Your task to perform on an android device: Do I have any events tomorrow? Image 0: 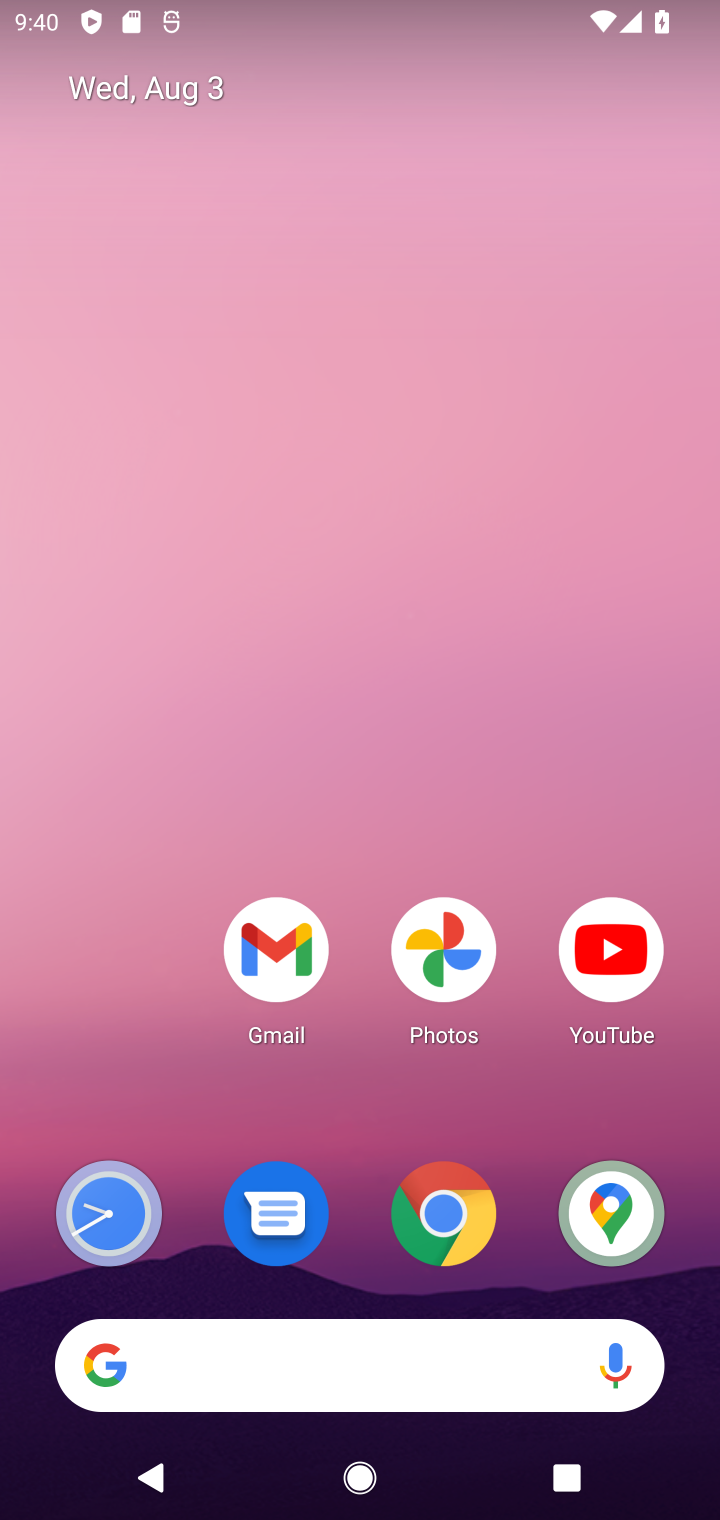
Step 0: drag from (386, 1108) to (335, 401)
Your task to perform on an android device: Do I have any events tomorrow? Image 1: 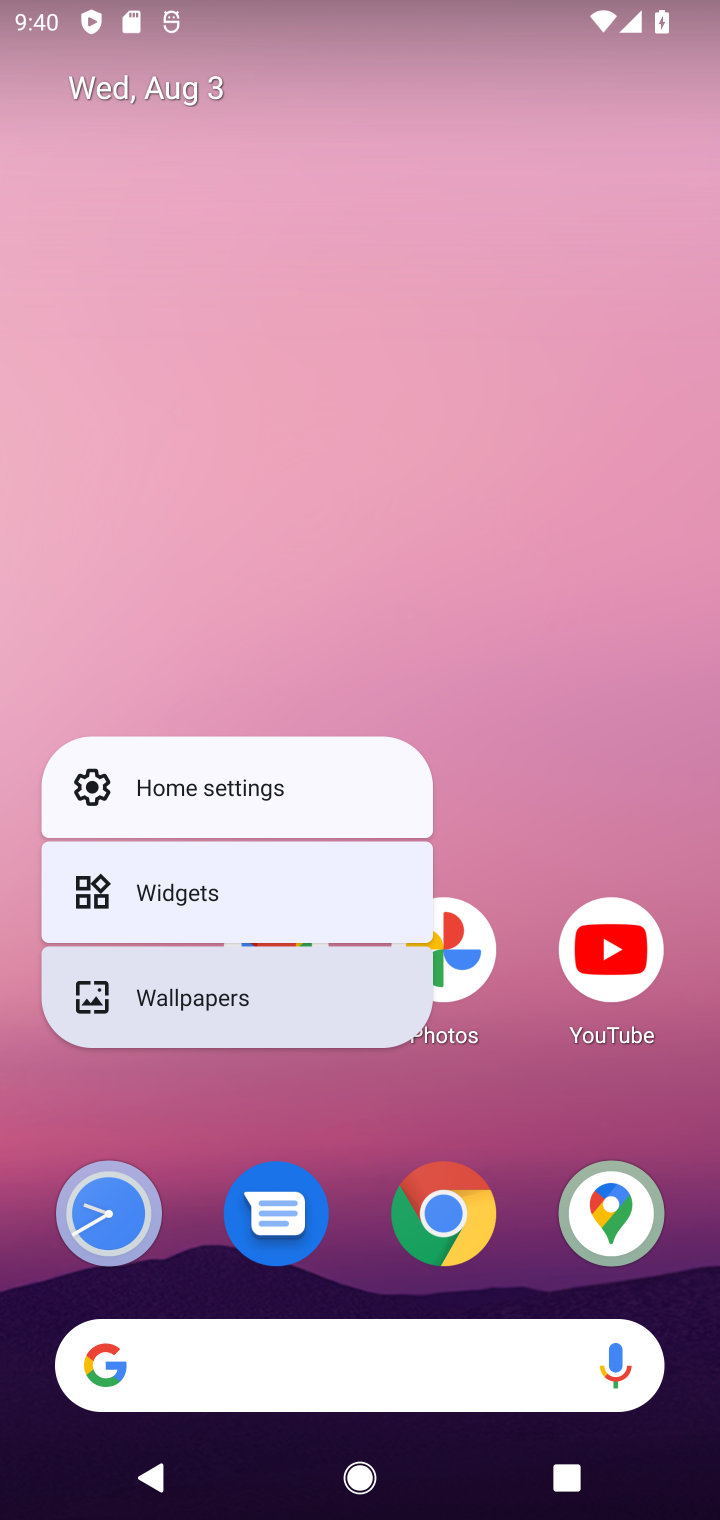
Step 1: click (530, 697)
Your task to perform on an android device: Do I have any events tomorrow? Image 2: 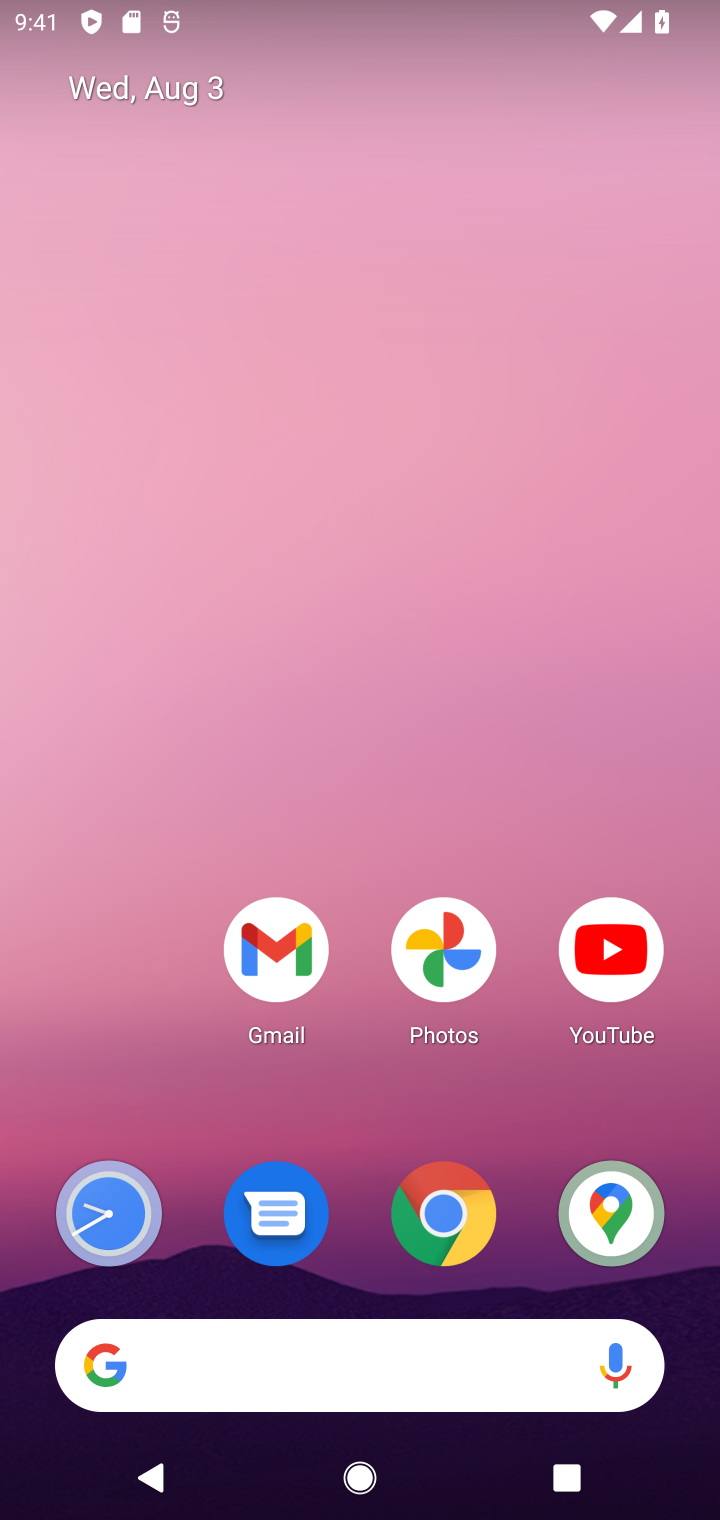
Step 2: click (396, 1113)
Your task to perform on an android device: Do I have any events tomorrow? Image 3: 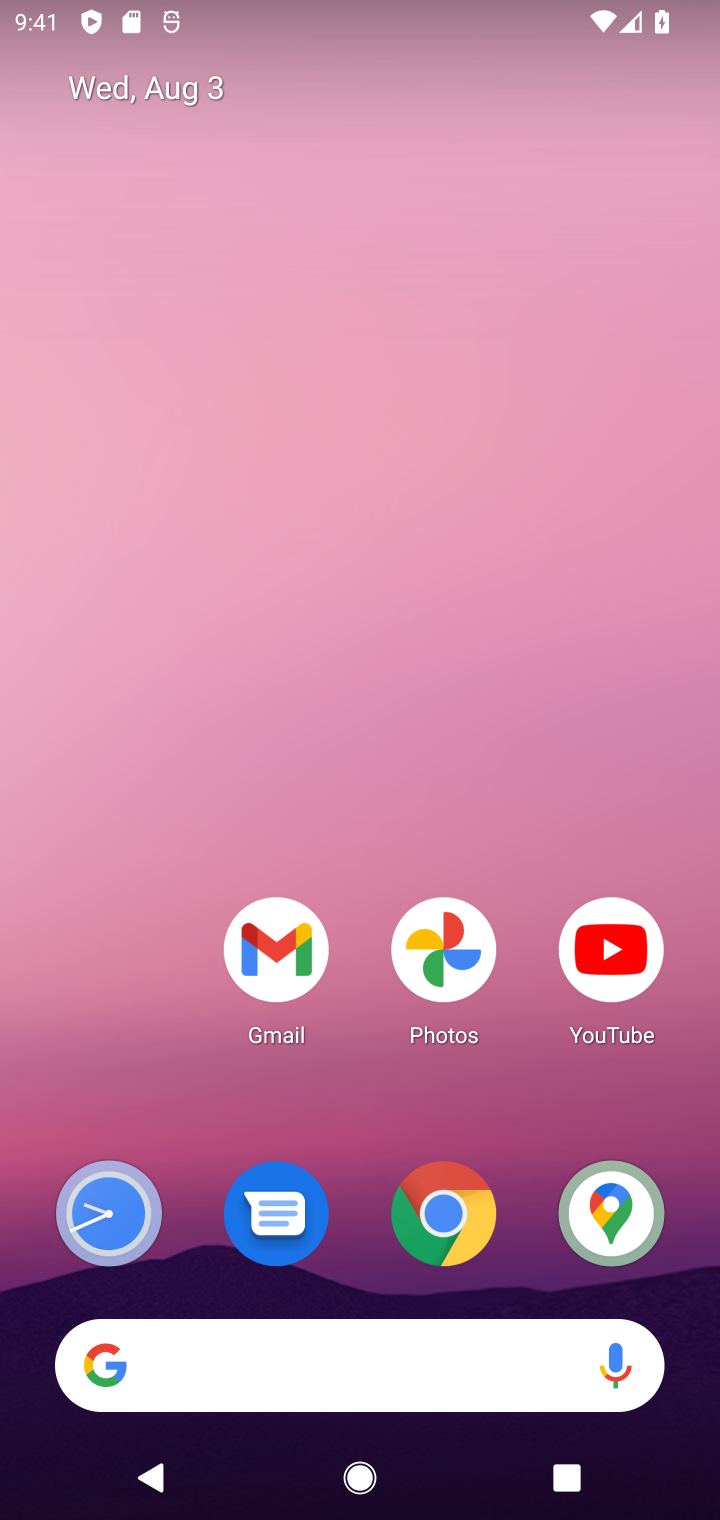
Step 3: drag from (449, 1103) to (328, 522)
Your task to perform on an android device: Do I have any events tomorrow? Image 4: 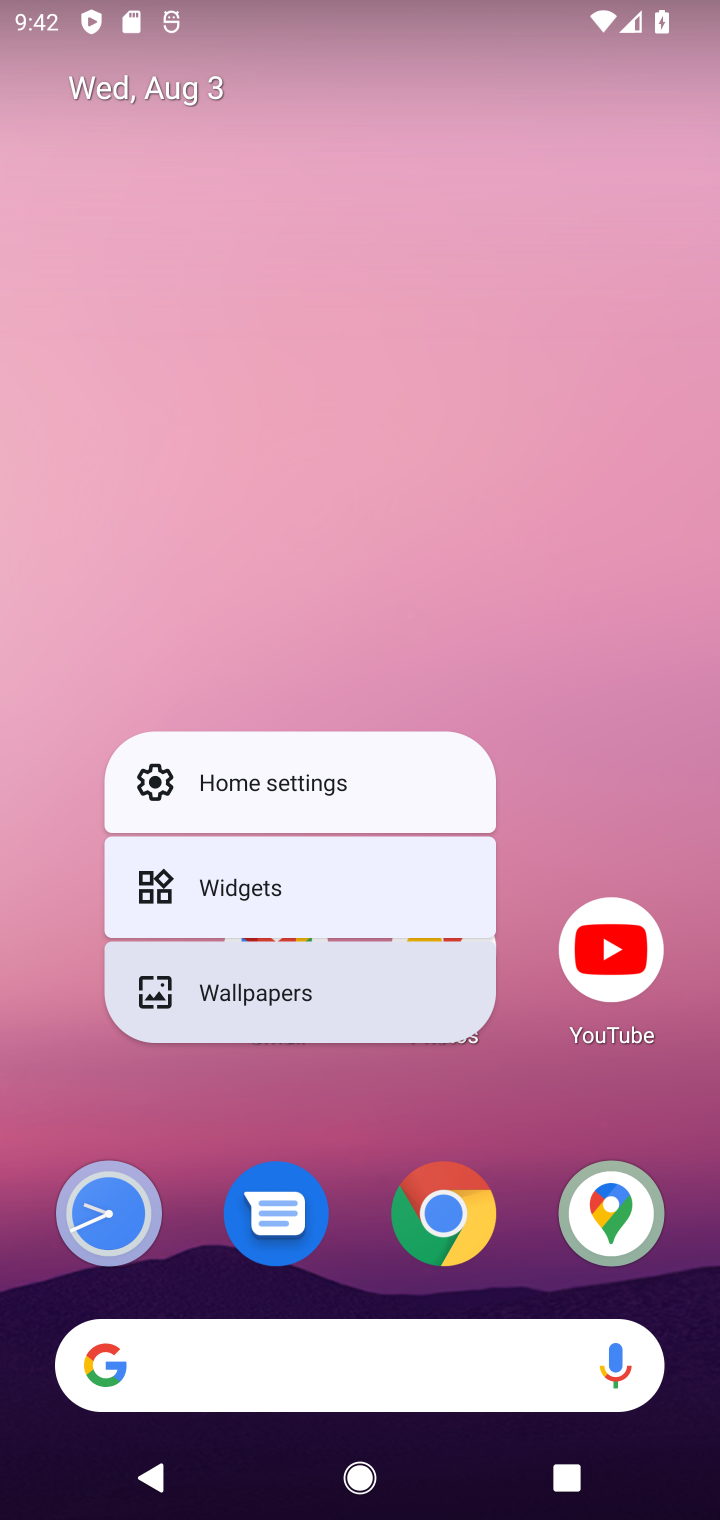
Step 4: drag from (579, 757) to (437, 53)
Your task to perform on an android device: Do I have any events tomorrow? Image 5: 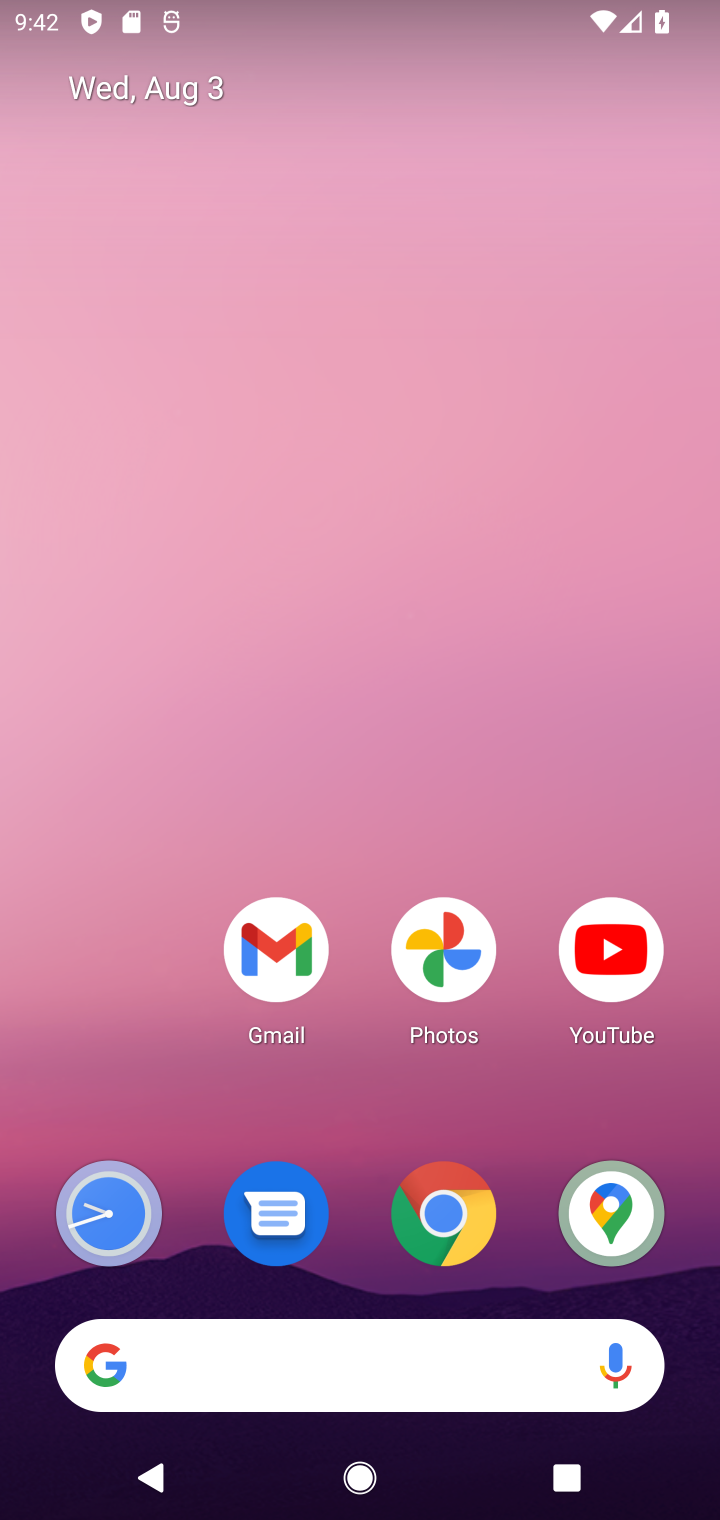
Step 5: drag from (509, 1000) to (422, 148)
Your task to perform on an android device: Do I have any events tomorrow? Image 6: 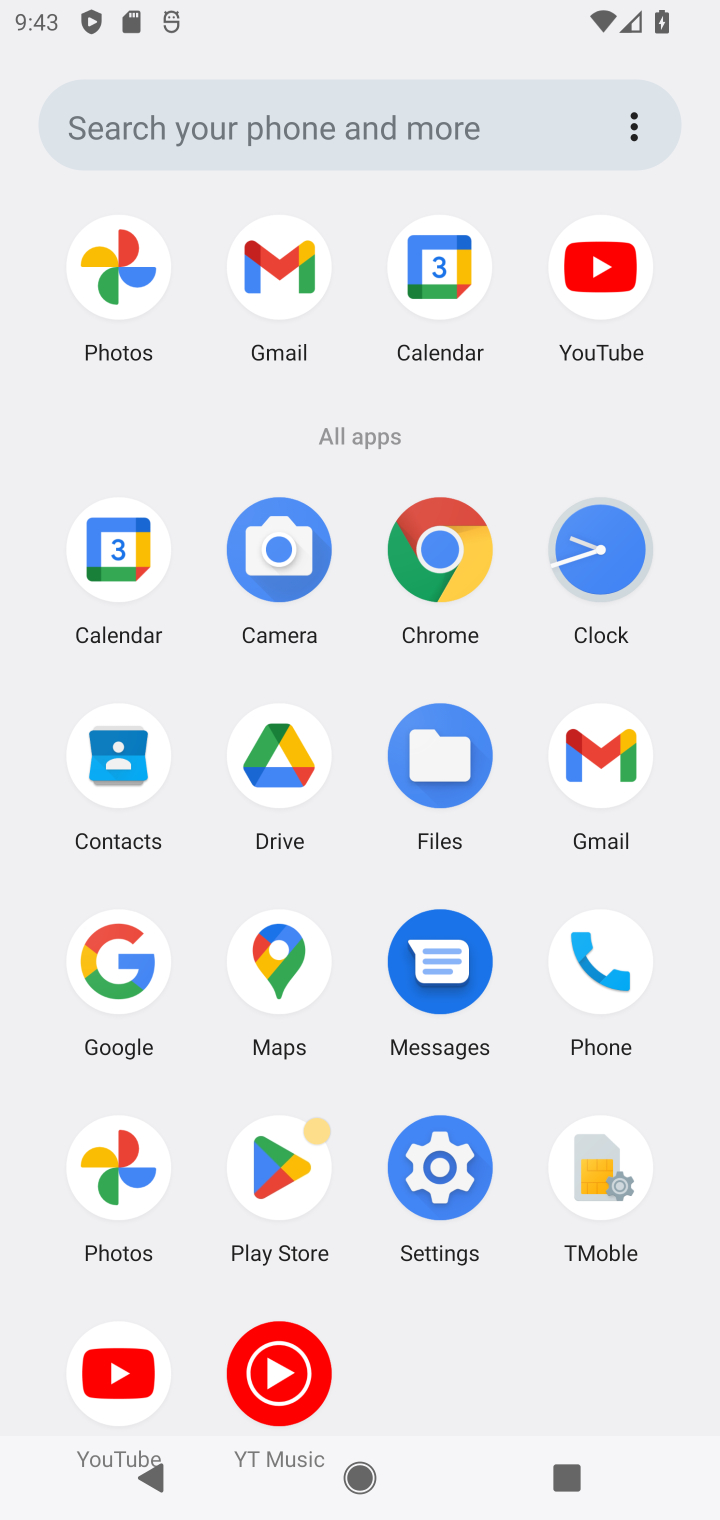
Step 6: click (458, 286)
Your task to perform on an android device: Do I have any events tomorrow? Image 7: 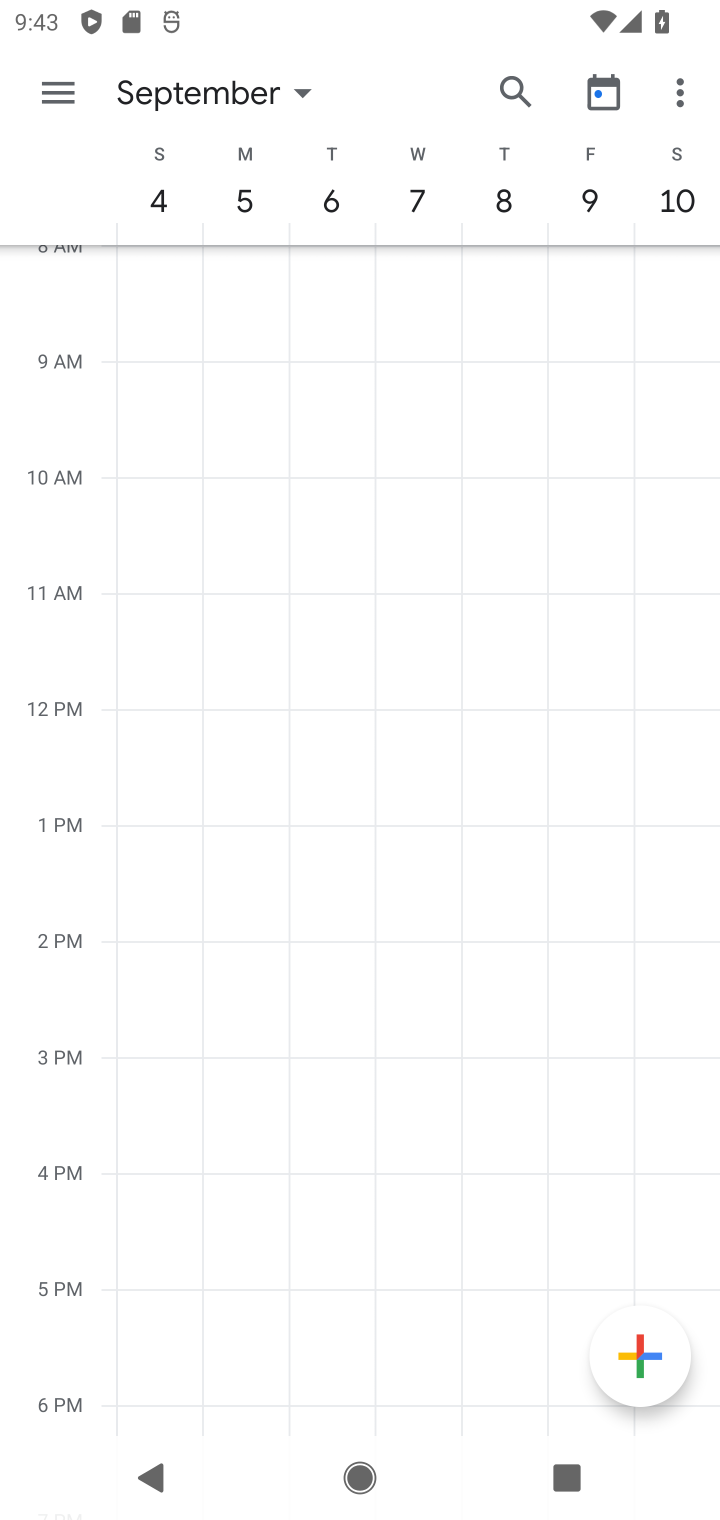
Step 7: click (60, 81)
Your task to perform on an android device: Do I have any events tomorrow? Image 8: 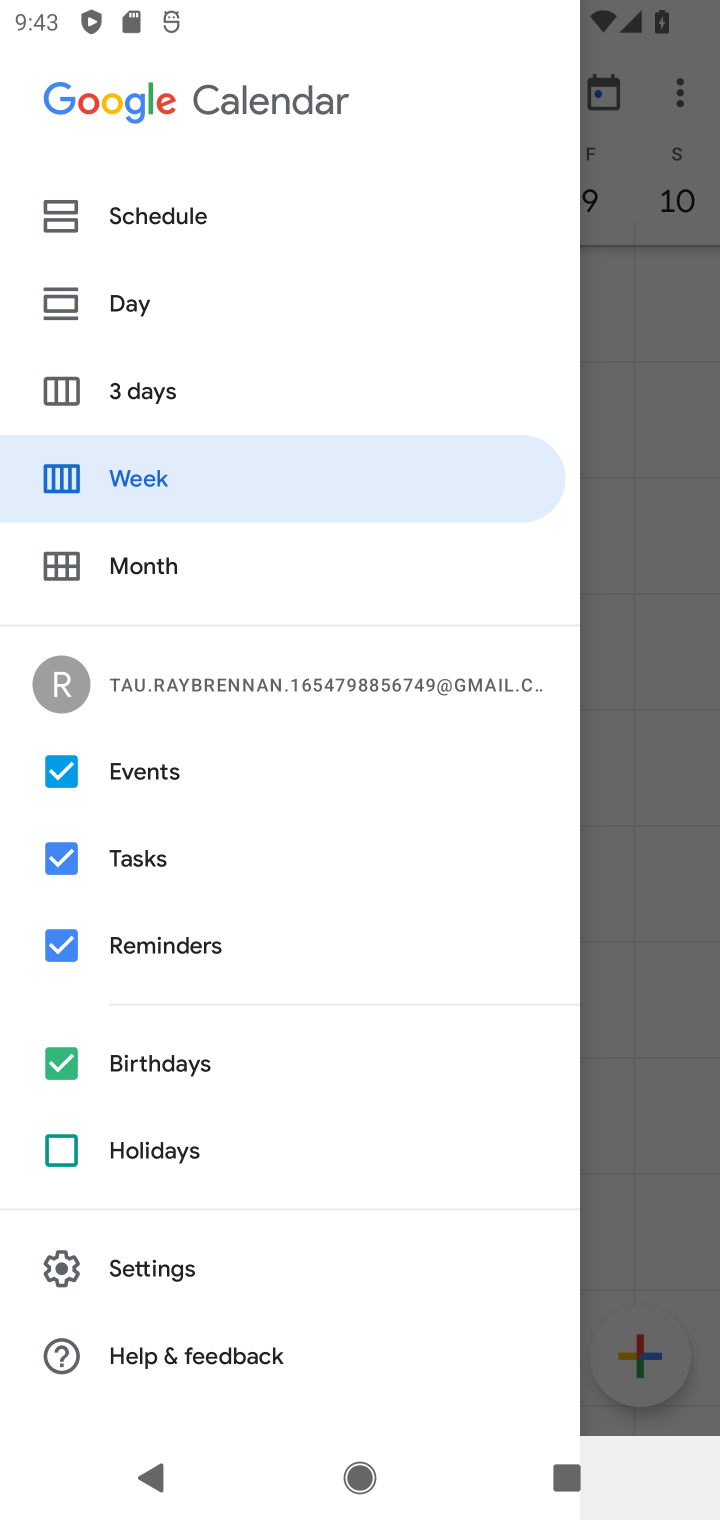
Step 8: click (282, 310)
Your task to perform on an android device: Do I have any events tomorrow? Image 9: 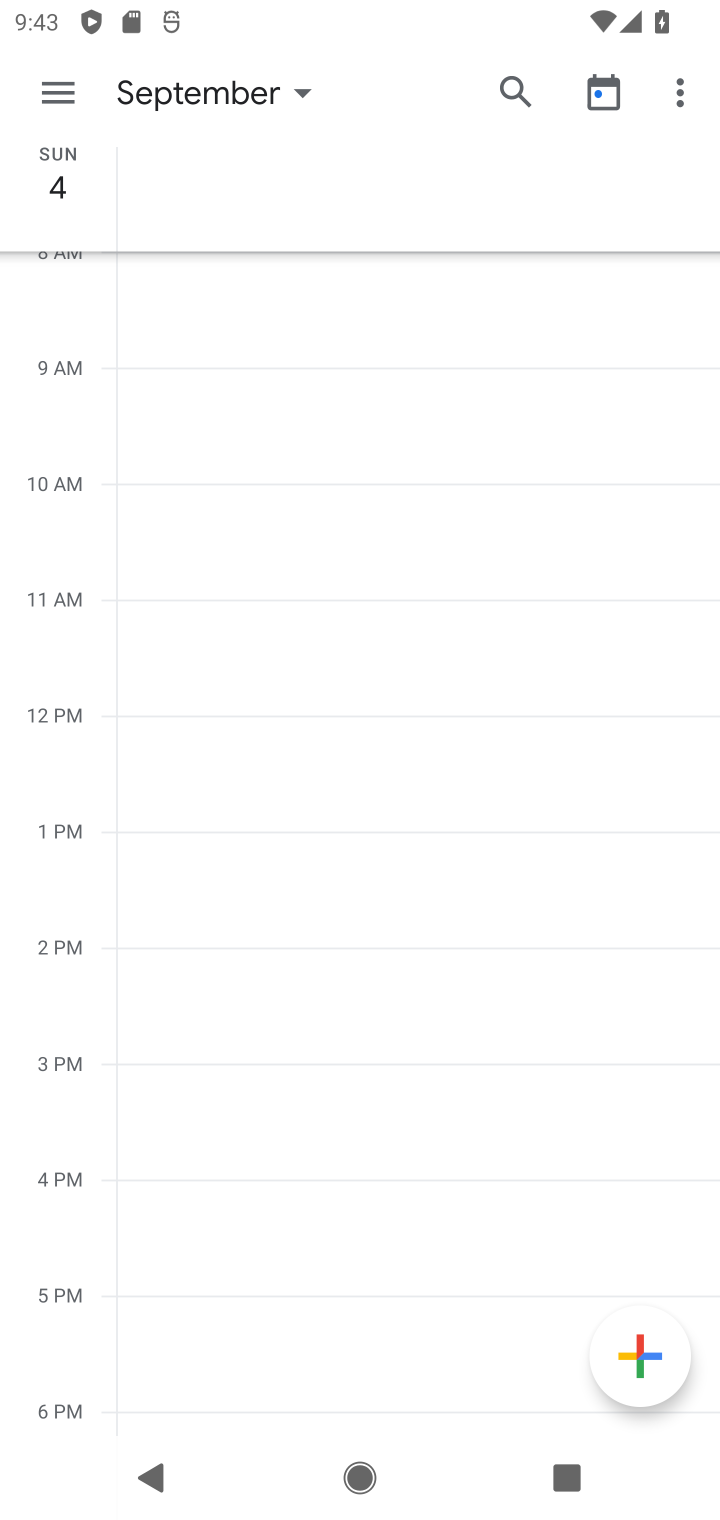
Step 9: task complete